Your task to perform on an android device: Play the last video I watched on Youtube Image 0: 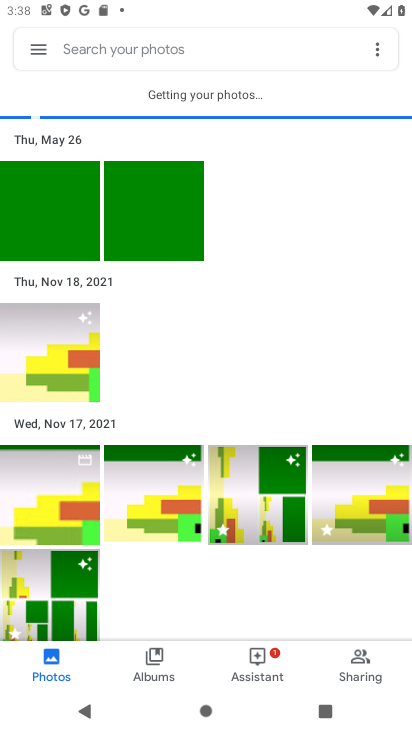
Step 0: press home button
Your task to perform on an android device: Play the last video I watched on Youtube Image 1: 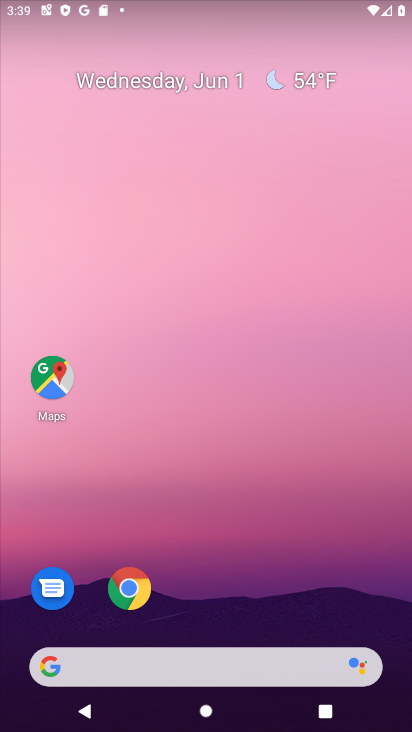
Step 1: drag from (196, 631) to (243, 177)
Your task to perform on an android device: Play the last video I watched on Youtube Image 2: 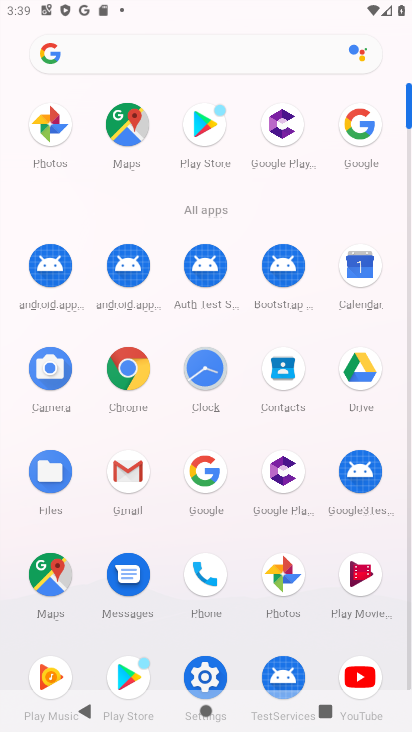
Step 2: click (349, 679)
Your task to perform on an android device: Play the last video I watched on Youtube Image 3: 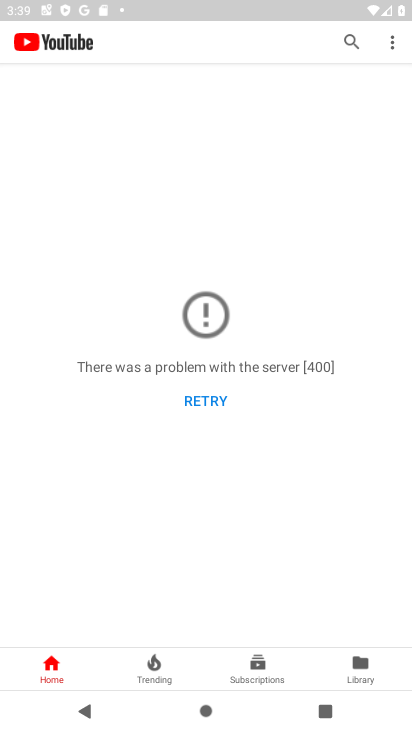
Step 3: click (363, 667)
Your task to perform on an android device: Play the last video I watched on Youtube Image 4: 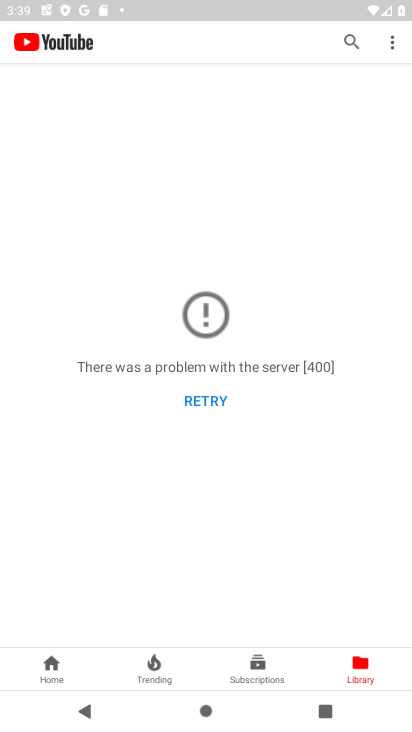
Step 4: task complete